Your task to perform on an android device: When is my next meeting? Image 0: 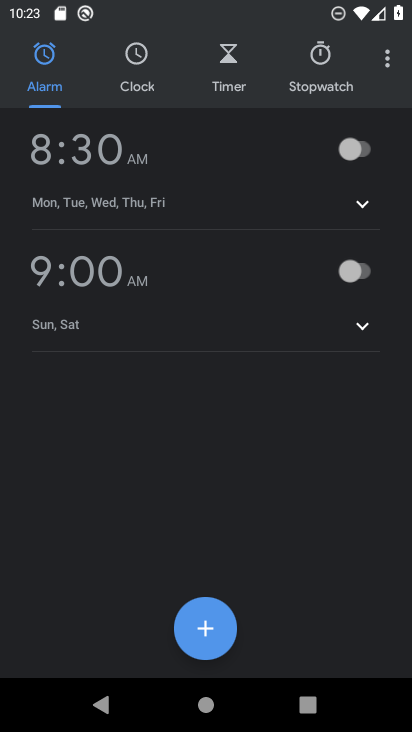
Step 0: press home button
Your task to perform on an android device: When is my next meeting? Image 1: 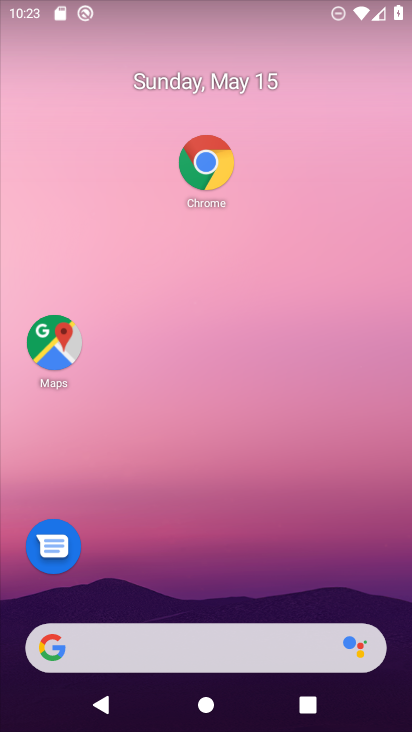
Step 1: drag from (242, 568) to (307, 278)
Your task to perform on an android device: When is my next meeting? Image 2: 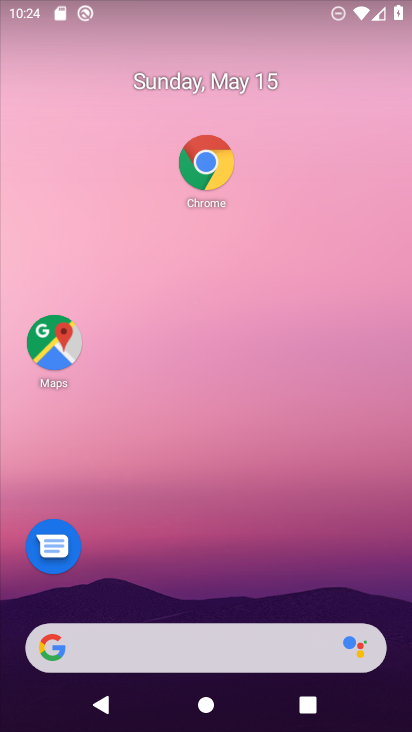
Step 2: drag from (280, 582) to (356, 237)
Your task to perform on an android device: When is my next meeting? Image 3: 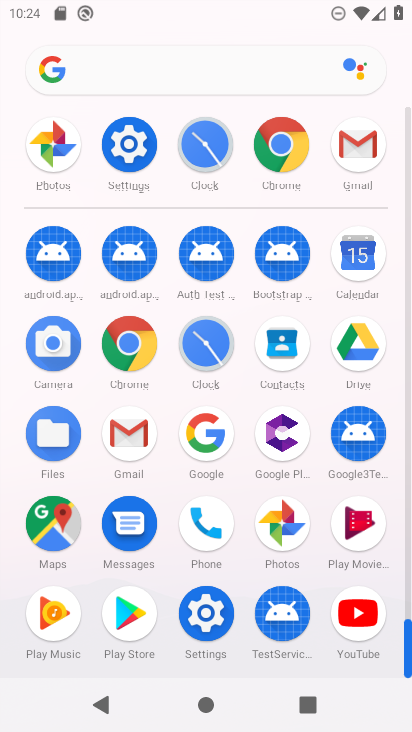
Step 3: click (345, 249)
Your task to perform on an android device: When is my next meeting? Image 4: 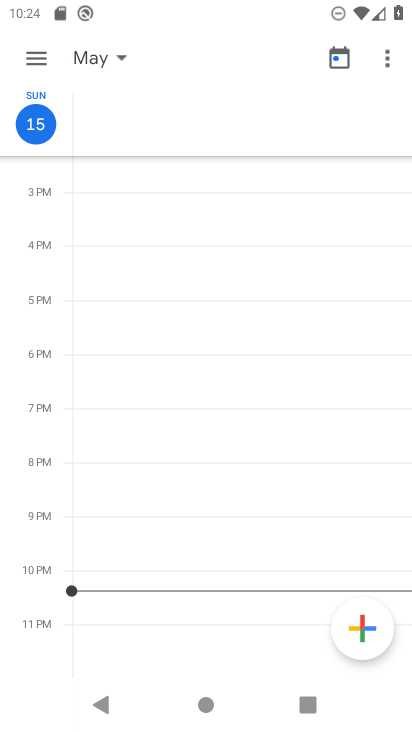
Step 4: click (21, 58)
Your task to perform on an android device: When is my next meeting? Image 5: 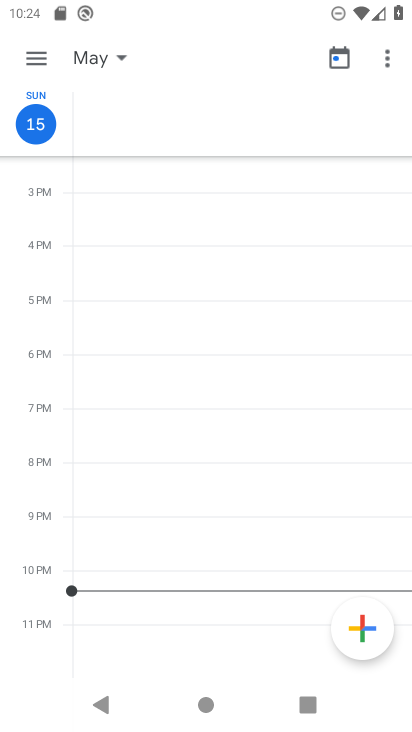
Step 5: click (36, 57)
Your task to perform on an android device: When is my next meeting? Image 6: 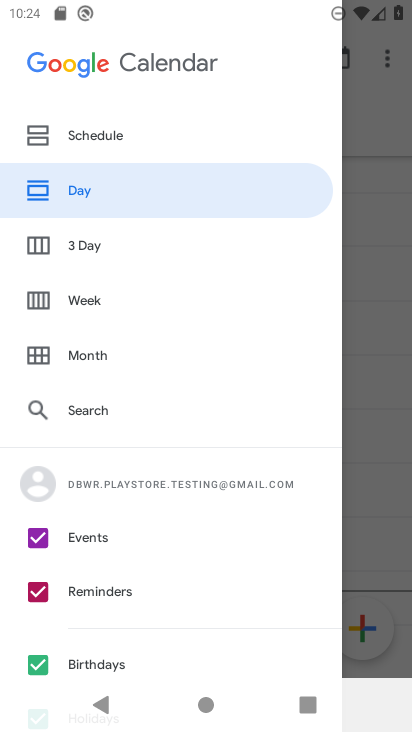
Step 6: click (122, 337)
Your task to perform on an android device: When is my next meeting? Image 7: 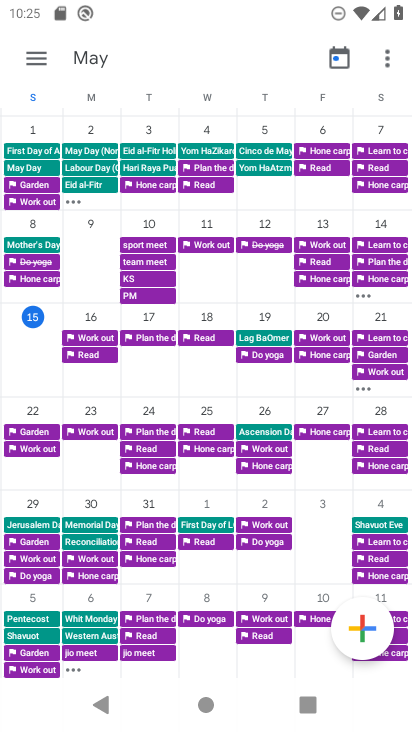
Step 7: task complete